Your task to perform on an android device: set the stopwatch Image 0: 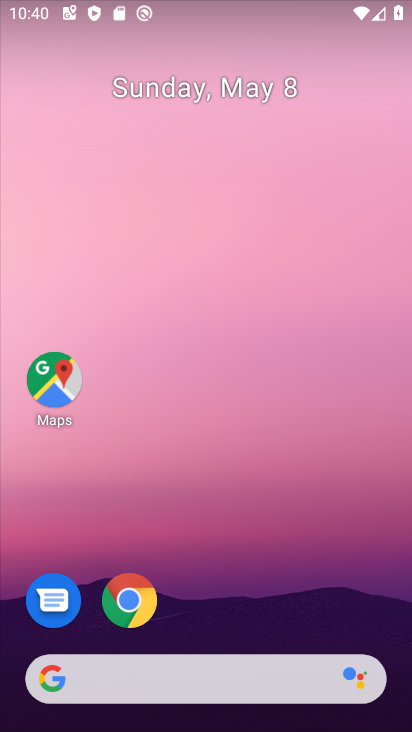
Step 0: drag from (28, 638) to (357, 167)
Your task to perform on an android device: set the stopwatch Image 1: 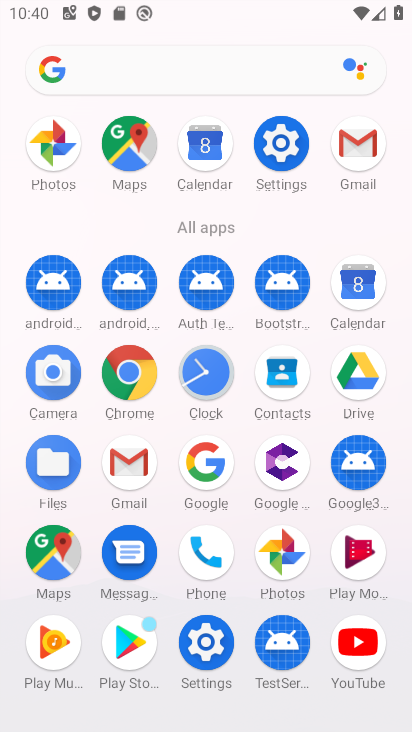
Step 1: click (234, 344)
Your task to perform on an android device: set the stopwatch Image 2: 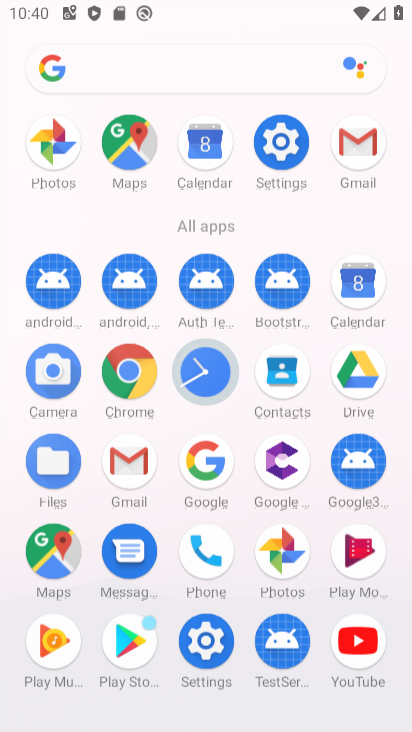
Step 2: click (221, 364)
Your task to perform on an android device: set the stopwatch Image 3: 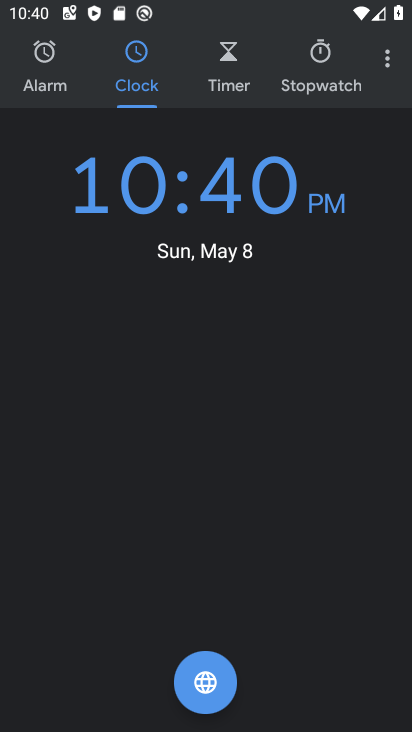
Step 3: click (300, 79)
Your task to perform on an android device: set the stopwatch Image 4: 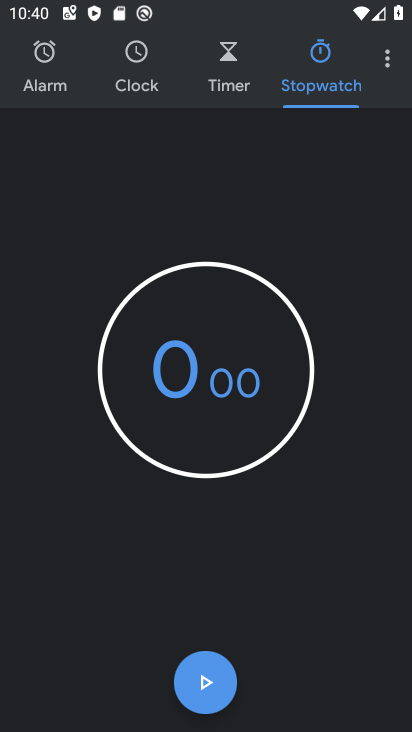
Step 4: click (187, 675)
Your task to perform on an android device: set the stopwatch Image 5: 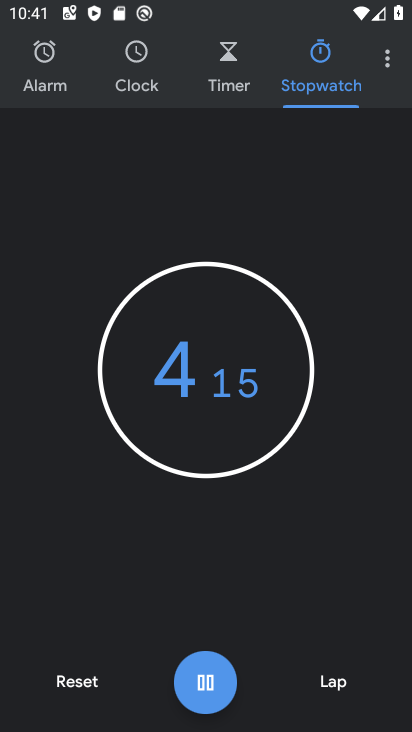
Step 5: task complete